Your task to perform on an android device: Open Maps and search for coffee Image 0: 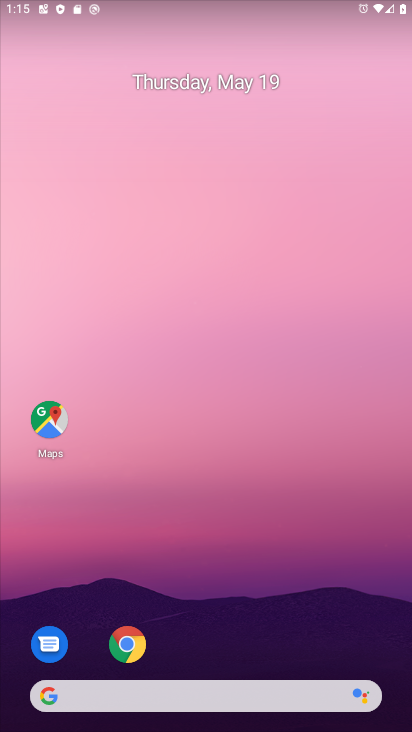
Step 0: drag from (239, 440) to (177, 20)
Your task to perform on an android device: Open Maps and search for coffee Image 1: 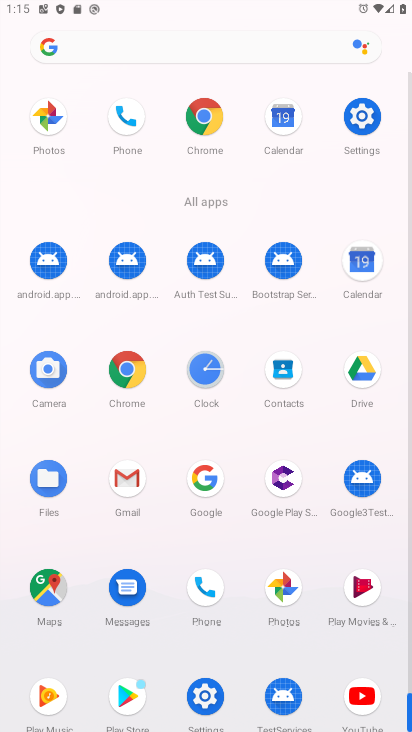
Step 1: click (43, 589)
Your task to perform on an android device: Open Maps and search for coffee Image 2: 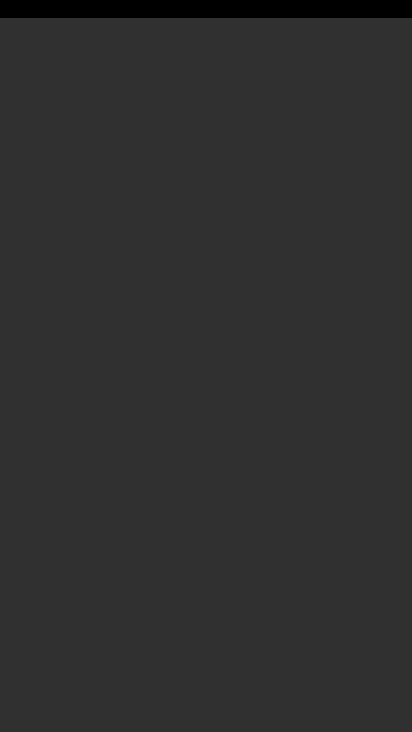
Step 2: click (44, 590)
Your task to perform on an android device: Open Maps and search for coffee Image 3: 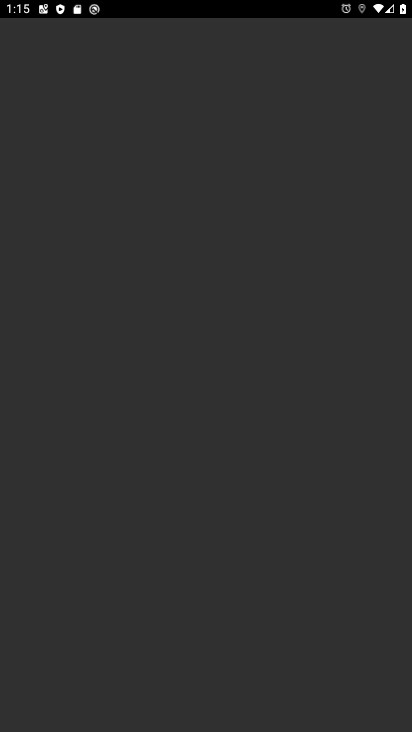
Step 3: click (45, 594)
Your task to perform on an android device: Open Maps and search for coffee Image 4: 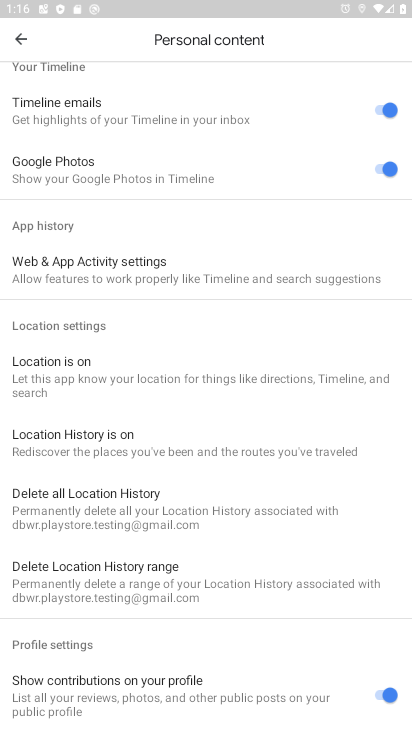
Step 4: click (17, 35)
Your task to perform on an android device: Open Maps and search for coffee Image 5: 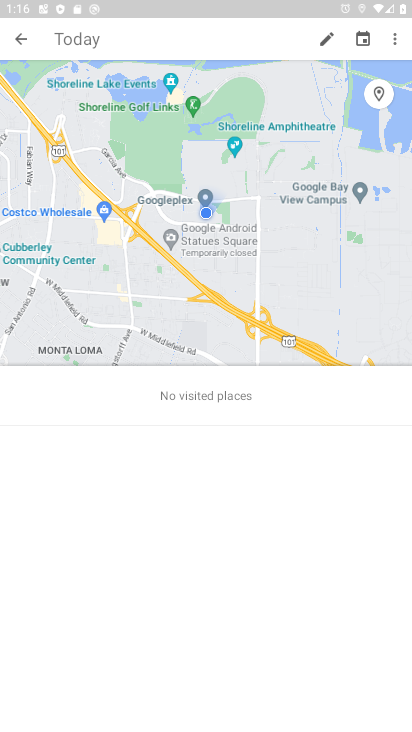
Step 5: click (63, 26)
Your task to perform on an android device: Open Maps and search for coffee Image 6: 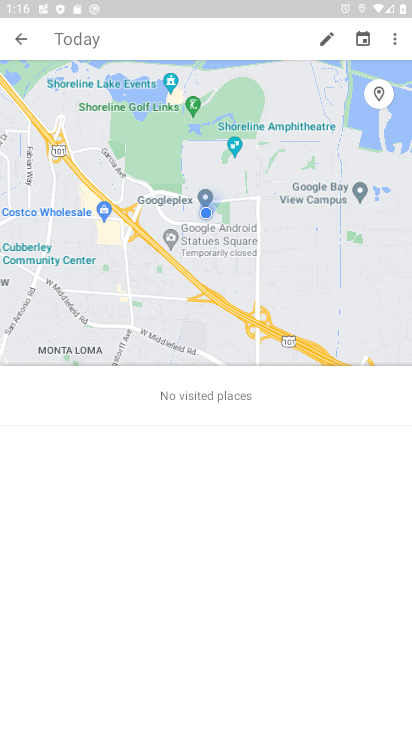
Step 6: click (63, 26)
Your task to perform on an android device: Open Maps and search for coffee Image 7: 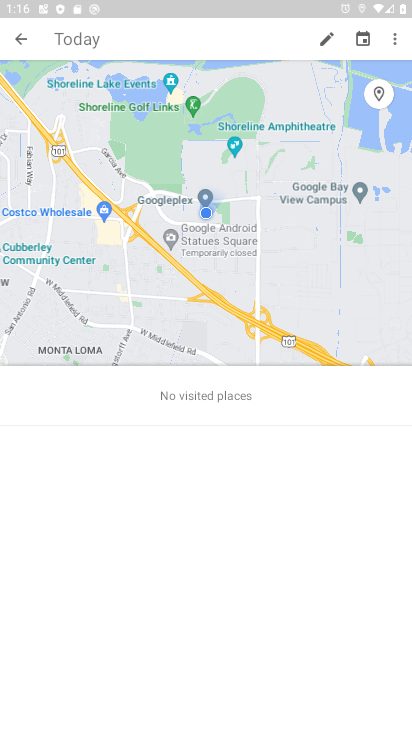
Step 7: click (63, 27)
Your task to perform on an android device: Open Maps and search for coffee Image 8: 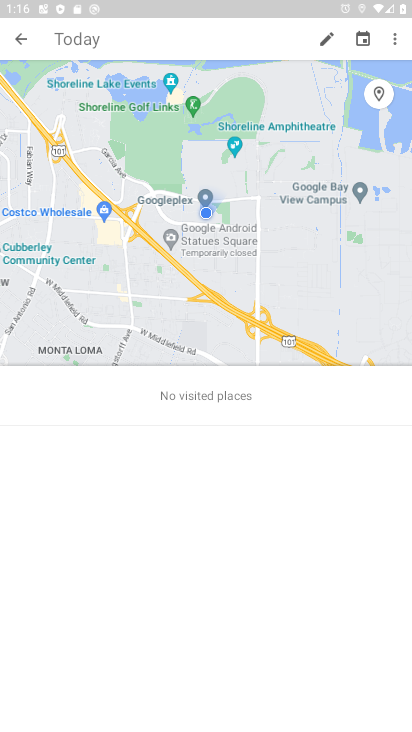
Step 8: click (48, 37)
Your task to perform on an android device: Open Maps and search for coffee Image 9: 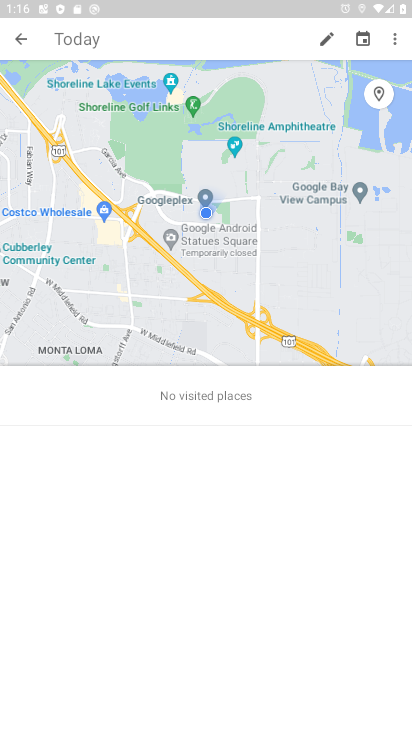
Step 9: click (50, 21)
Your task to perform on an android device: Open Maps and search for coffee Image 10: 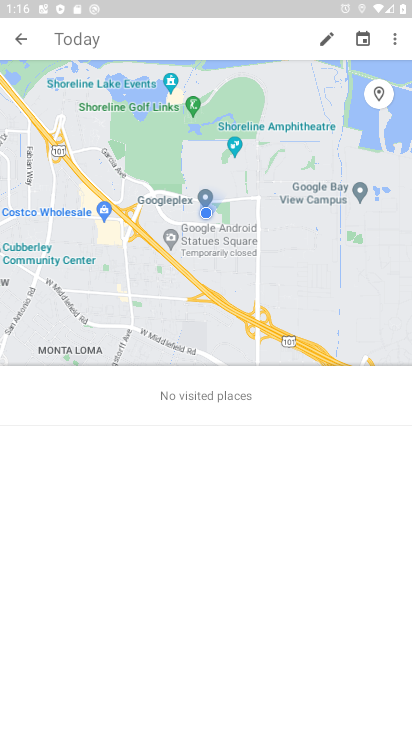
Step 10: click (50, 39)
Your task to perform on an android device: Open Maps and search for coffee Image 11: 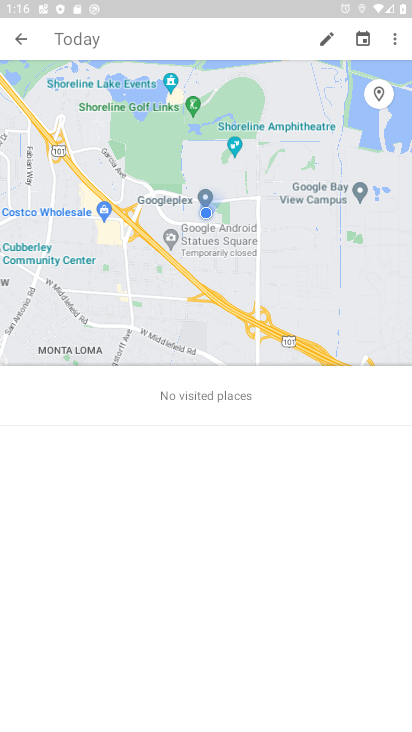
Step 11: click (54, 39)
Your task to perform on an android device: Open Maps and search for coffee Image 12: 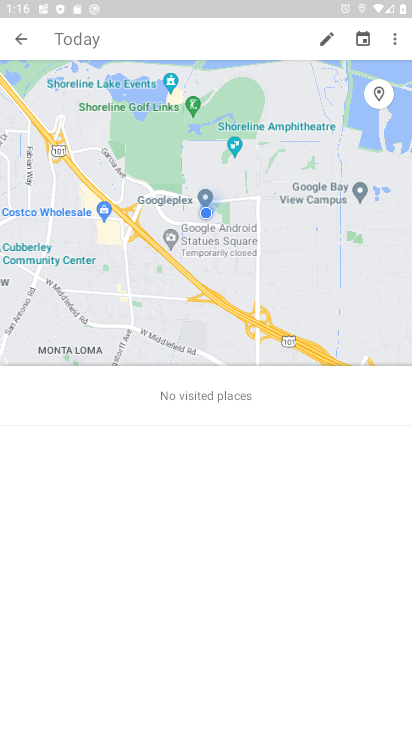
Step 12: click (63, 40)
Your task to perform on an android device: Open Maps and search for coffee Image 13: 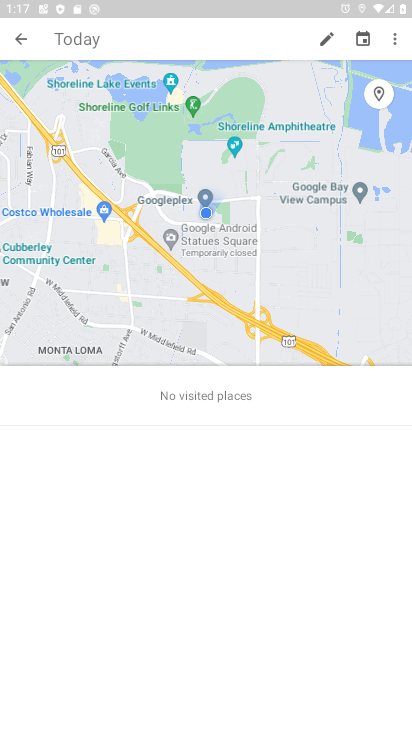
Step 13: type "coffee"
Your task to perform on an android device: Open Maps and search for coffee Image 14: 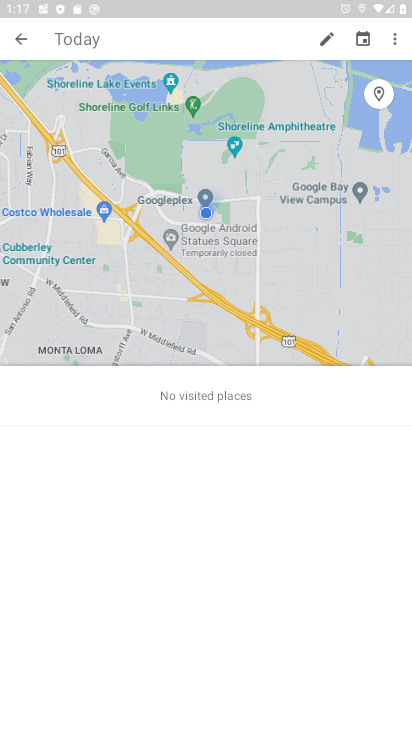
Step 14: click (62, 37)
Your task to perform on an android device: Open Maps and search for coffee Image 15: 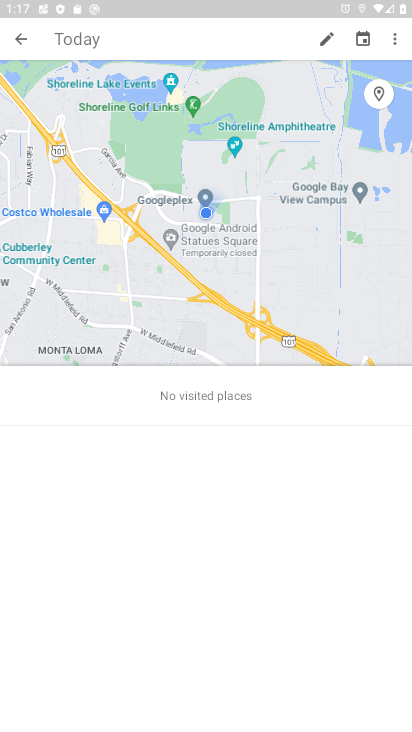
Step 15: click (67, 44)
Your task to perform on an android device: Open Maps and search for coffee Image 16: 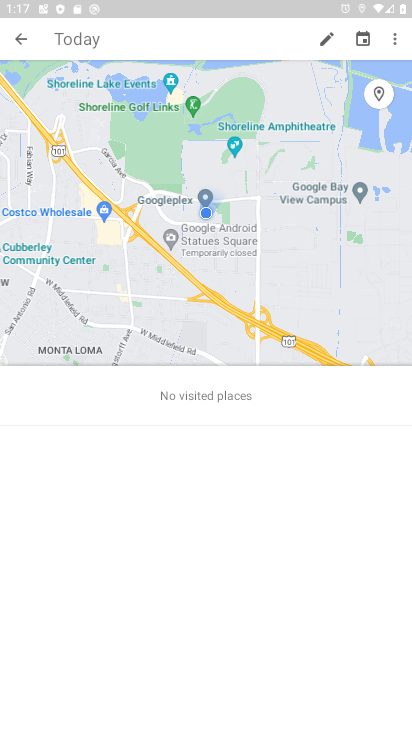
Step 16: click (68, 41)
Your task to perform on an android device: Open Maps and search for coffee Image 17: 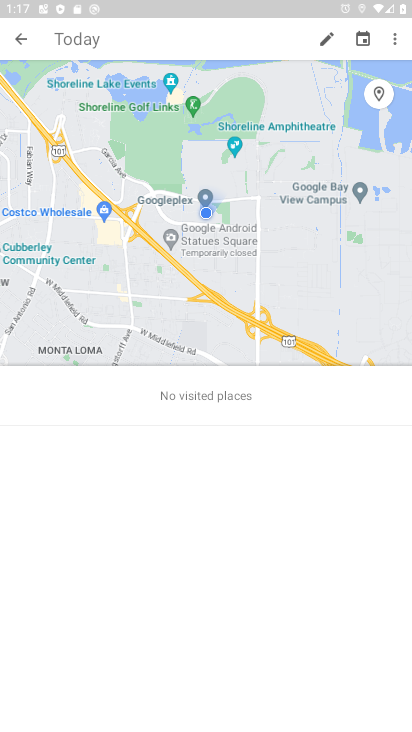
Step 17: click (59, 40)
Your task to perform on an android device: Open Maps and search for coffee Image 18: 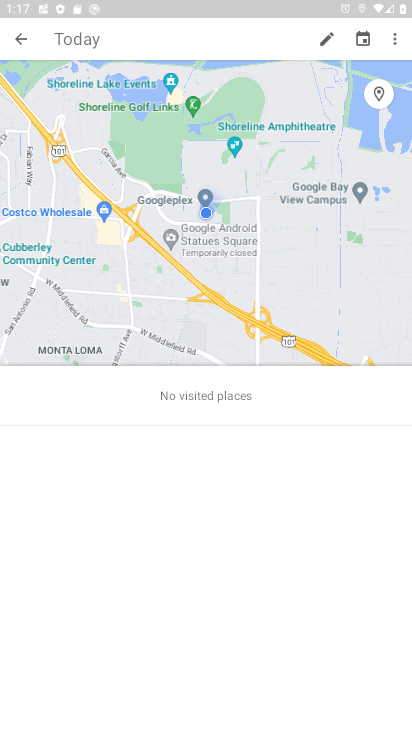
Step 18: click (59, 40)
Your task to perform on an android device: Open Maps and search for coffee Image 19: 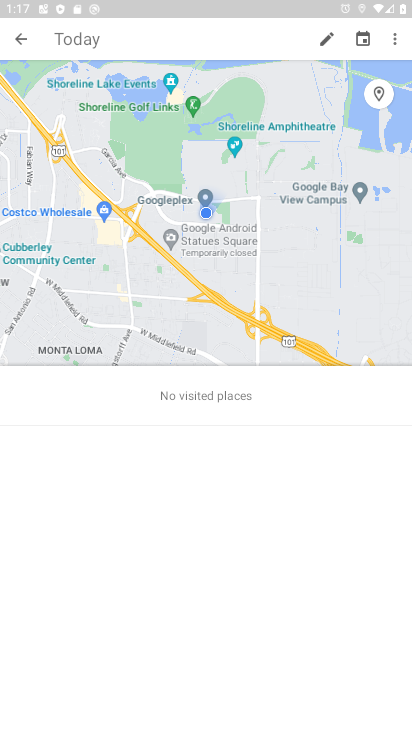
Step 19: click (59, 40)
Your task to perform on an android device: Open Maps and search for coffee Image 20: 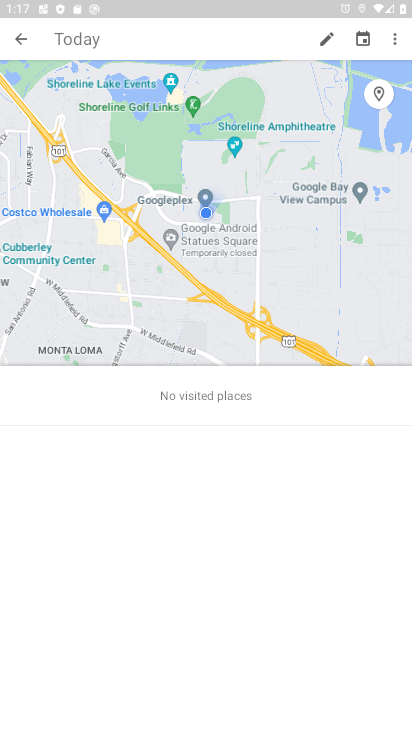
Step 20: click (59, 40)
Your task to perform on an android device: Open Maps and search for coffee Image 21: 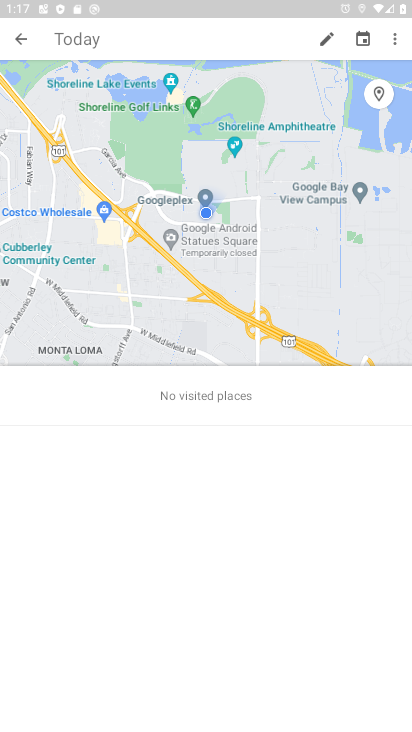
Step 21: click (63, 39)
Your task to perform on an android device: Open Maps and search for coffee Image 22: 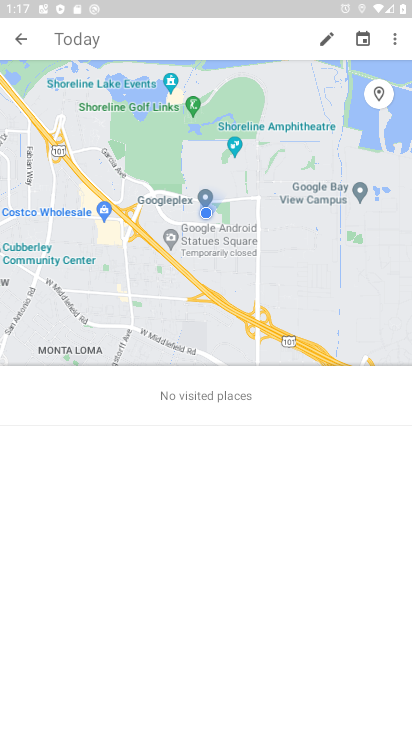
Step 22: type "coffee"
Your task to perform on an android device: Open Maps and search for coffee Image 23: 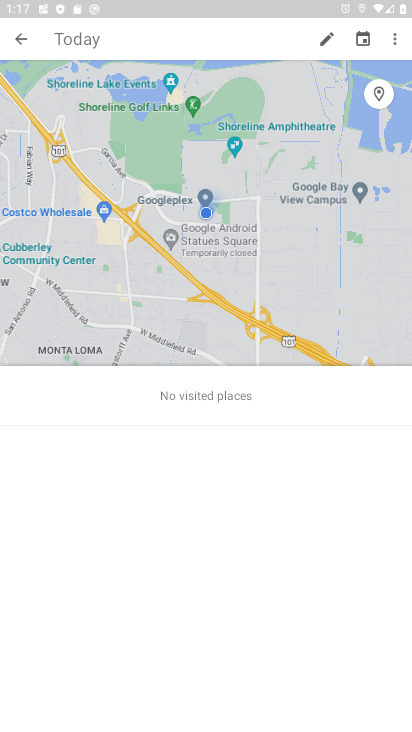
Step 23: click (113, 41)
Your task to perform on an android device: Open Maps and search for coffee Image 24: 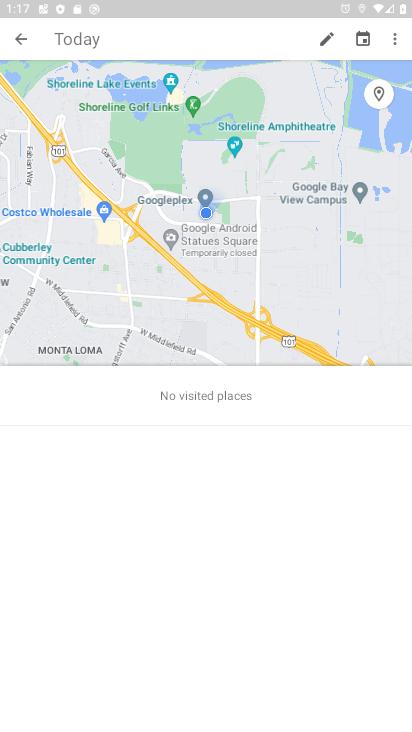
Step 24: click (24, 37)
Your task to perform on an android device: Open Maps and search for coffee Image 25: 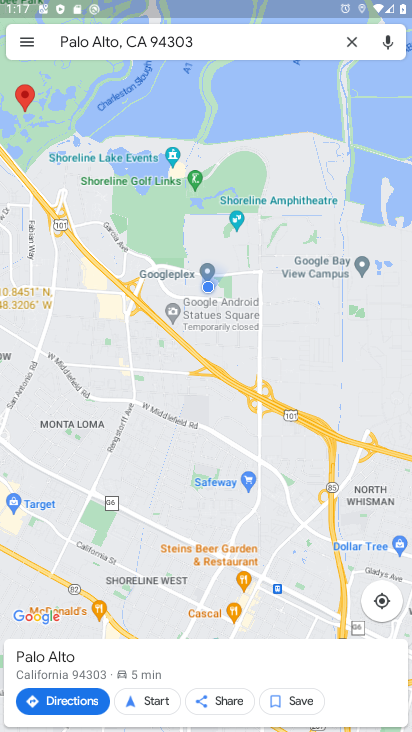
Step 25: click (352, 42)
Your task to perform on an android device: Open Maps and search for coffee Image 26: 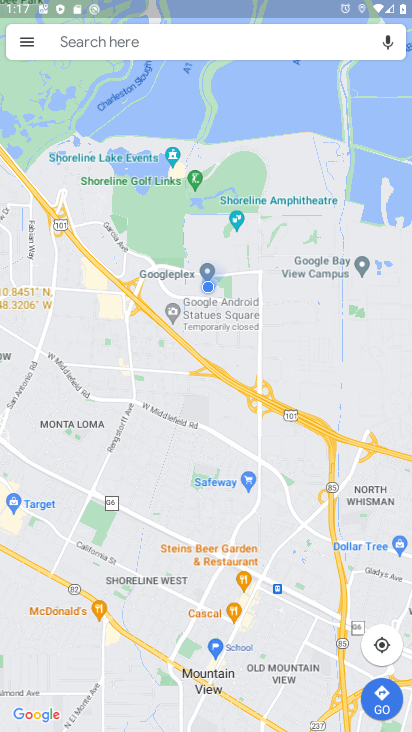
Step 26: task complete